Your task to perform on an android device: Open Youtube and go to "Your channel" Image 0: 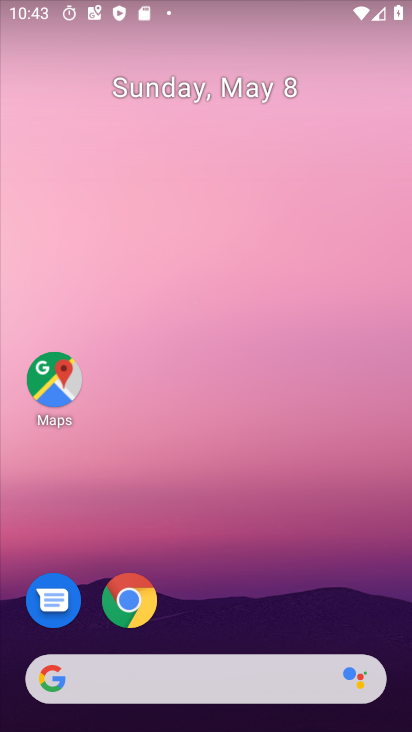
Step 0: drag from (20, 562) to (274, 161)
Your task to perform on an android device: Open Youtube and go to "Your channel" Image 1: 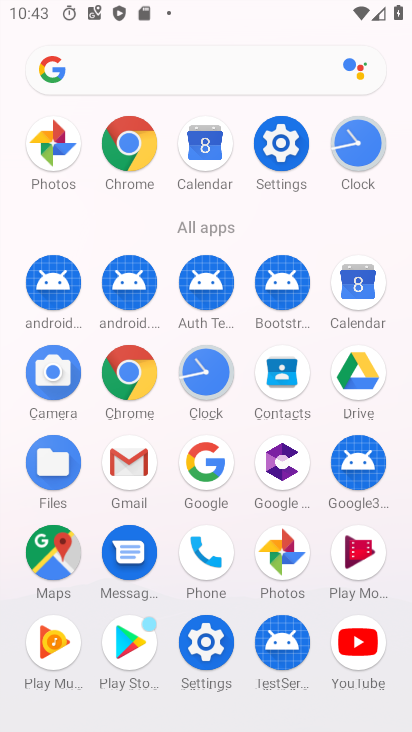
Step 1: click (344, 650)
Your task to perform on an android device: Open Youtube and go to "Your channel" Image 2: 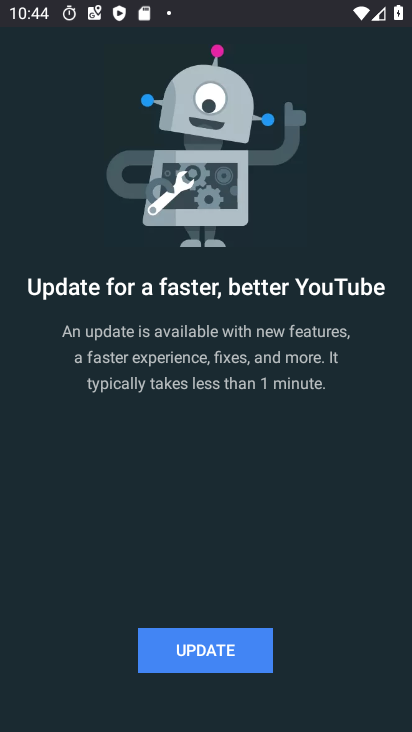
Step 2: task complete